Your task to perform on an android device: Show the shopping cart on ebay.com. Search for "panasonic triple a" on ebay.com, select the first entry, add it to the cart, then select checkout. Image 0: 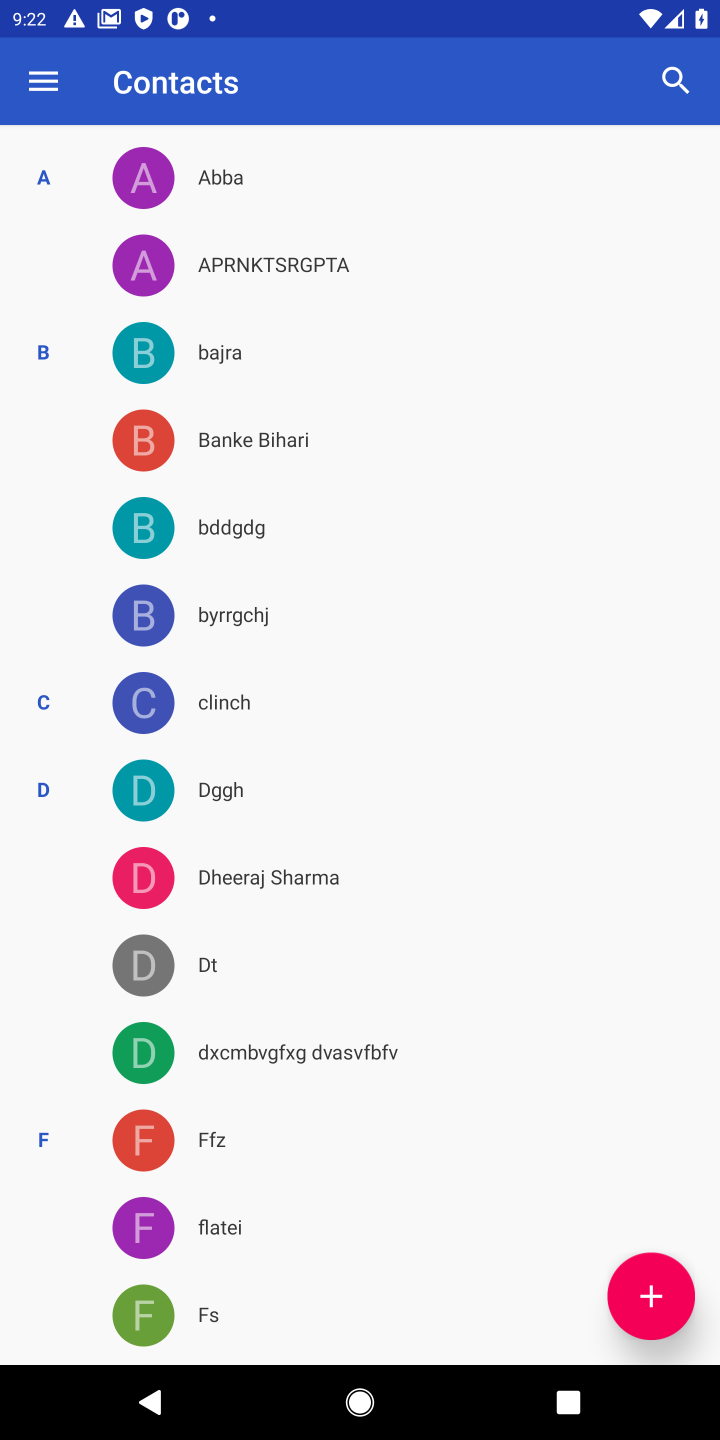
Step 0: press home button
Your task to perform on an android device: Show the shopping cart on ebay.com. Search for "panasonic triple a" on ebay.com, select the first entry, add it to the cart, then select checkout. Image 1: 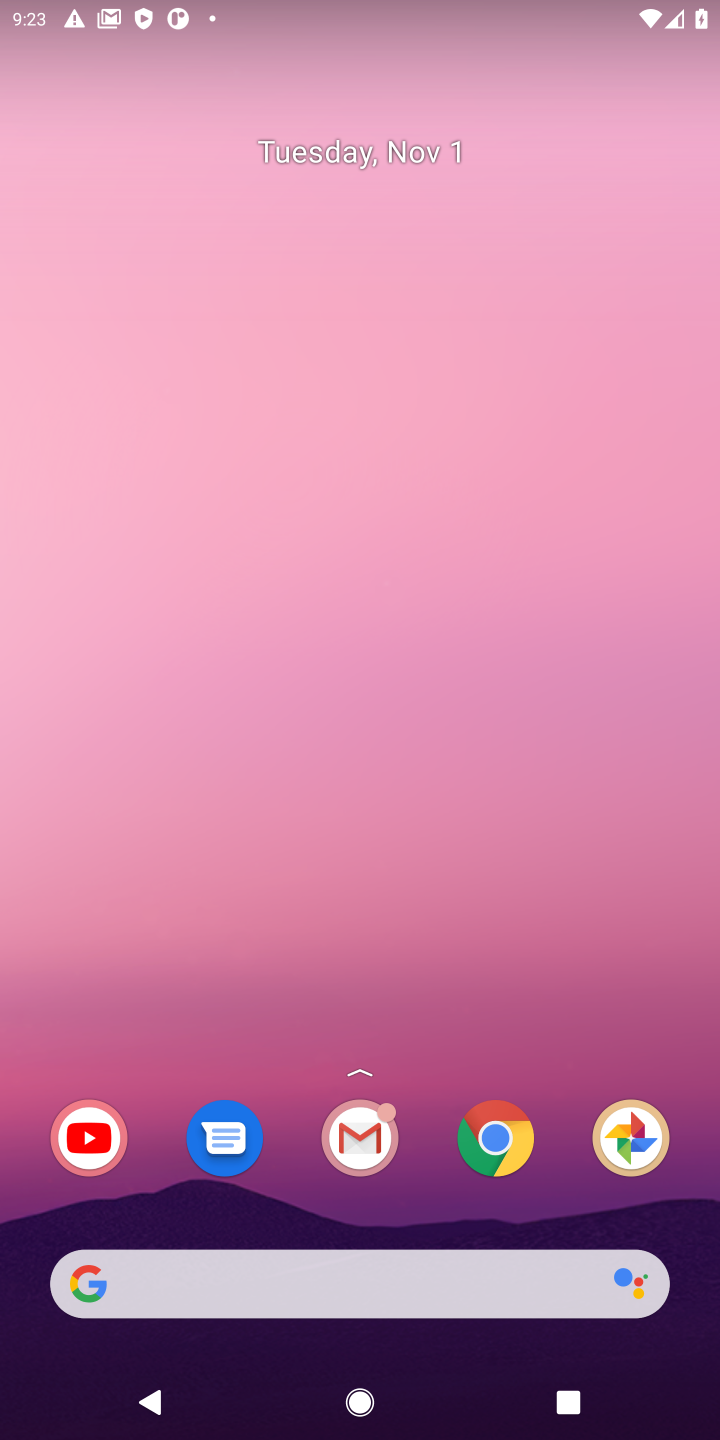
Step 1: click (486, 1150)
Your task to perform on an android device: Show the shopping cart on ebay.com. Search for "panasonic triple a" on ebay.com, select the first entry, add it to the cart, then select checkout. Image 2: 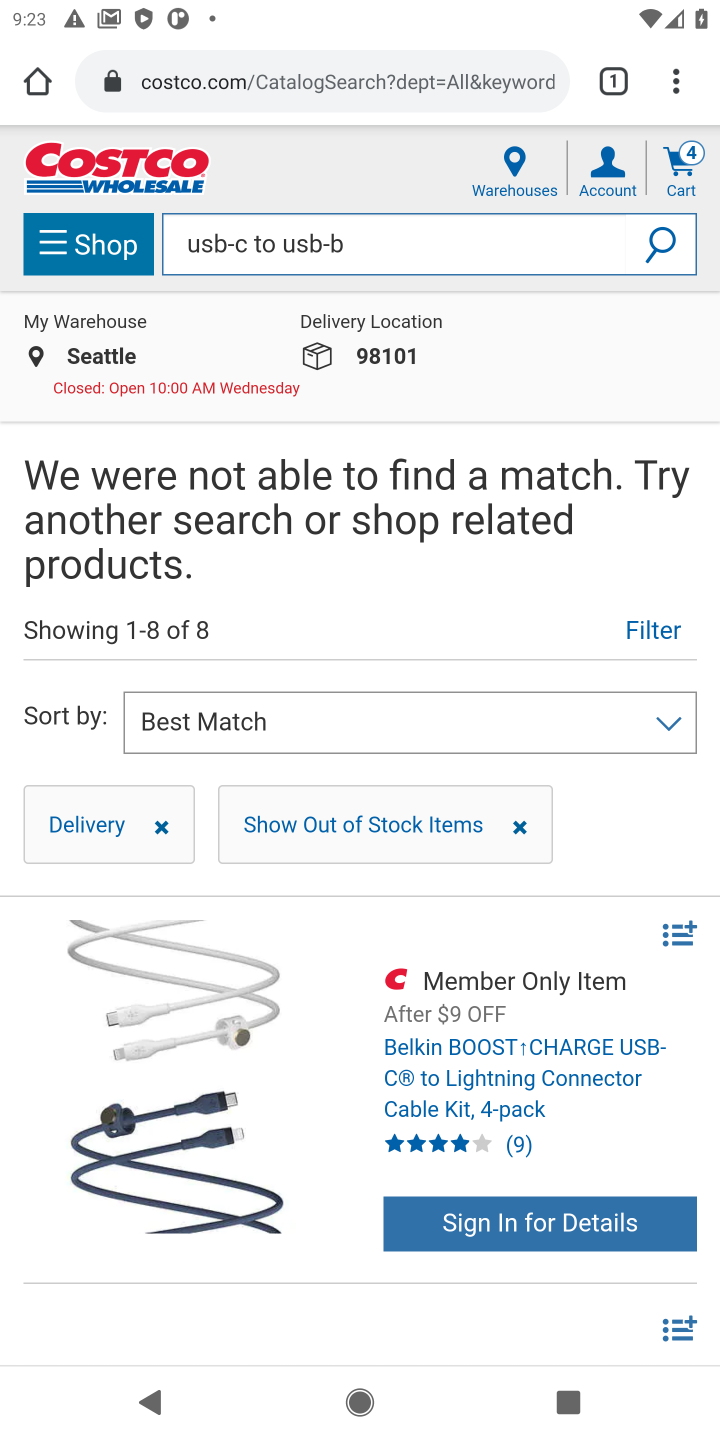
Step 2: click (331, 80)
Your task to perform on an android device: Show the shopping cart on ebay.com. Search for "panasonic triple a" on ebay.com, select the first entry, add it to the cart, then select checkout. Image 3: 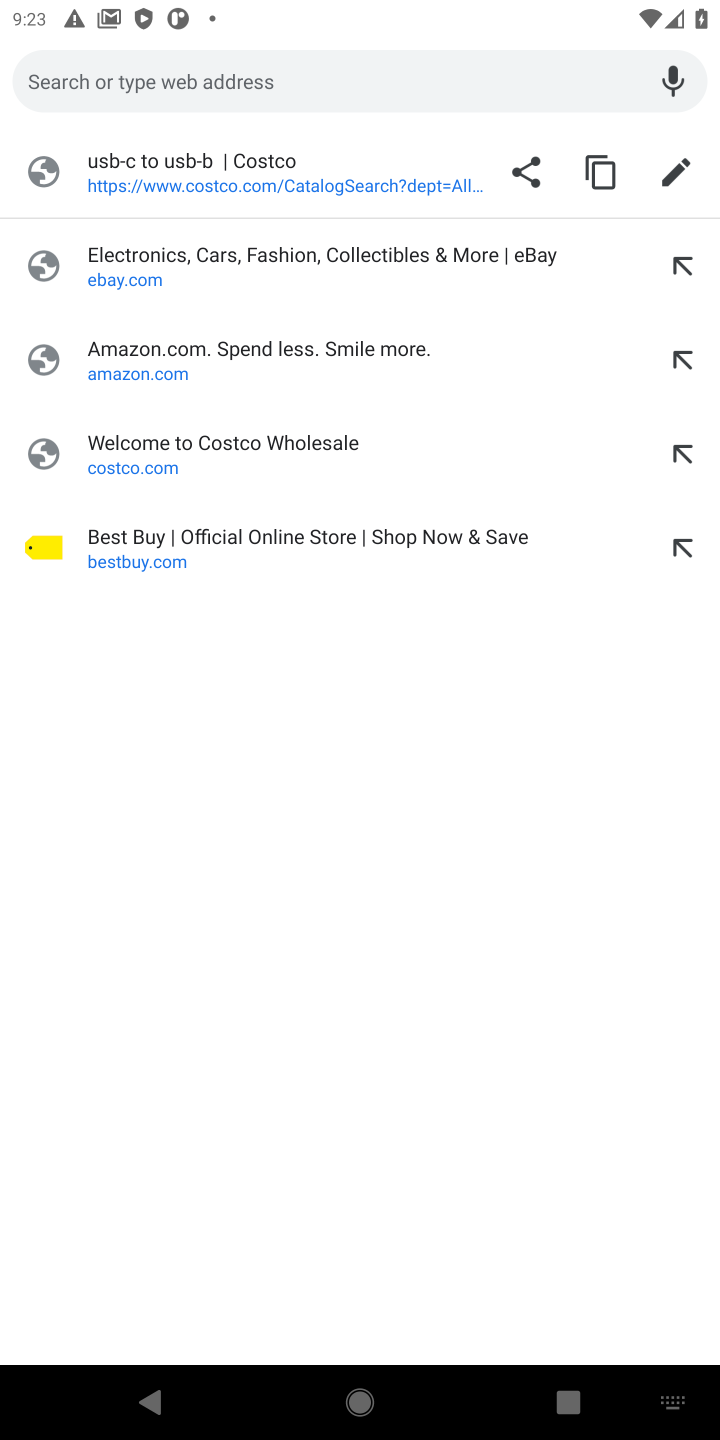
Step 3: type "ebay.com"
Your task to perform on an android device: Show the shopping cart on ebay.com. Search for "panasonic triple a" on ebay.com, select the first entry, add it to the cart, then select checkout. Image 4: 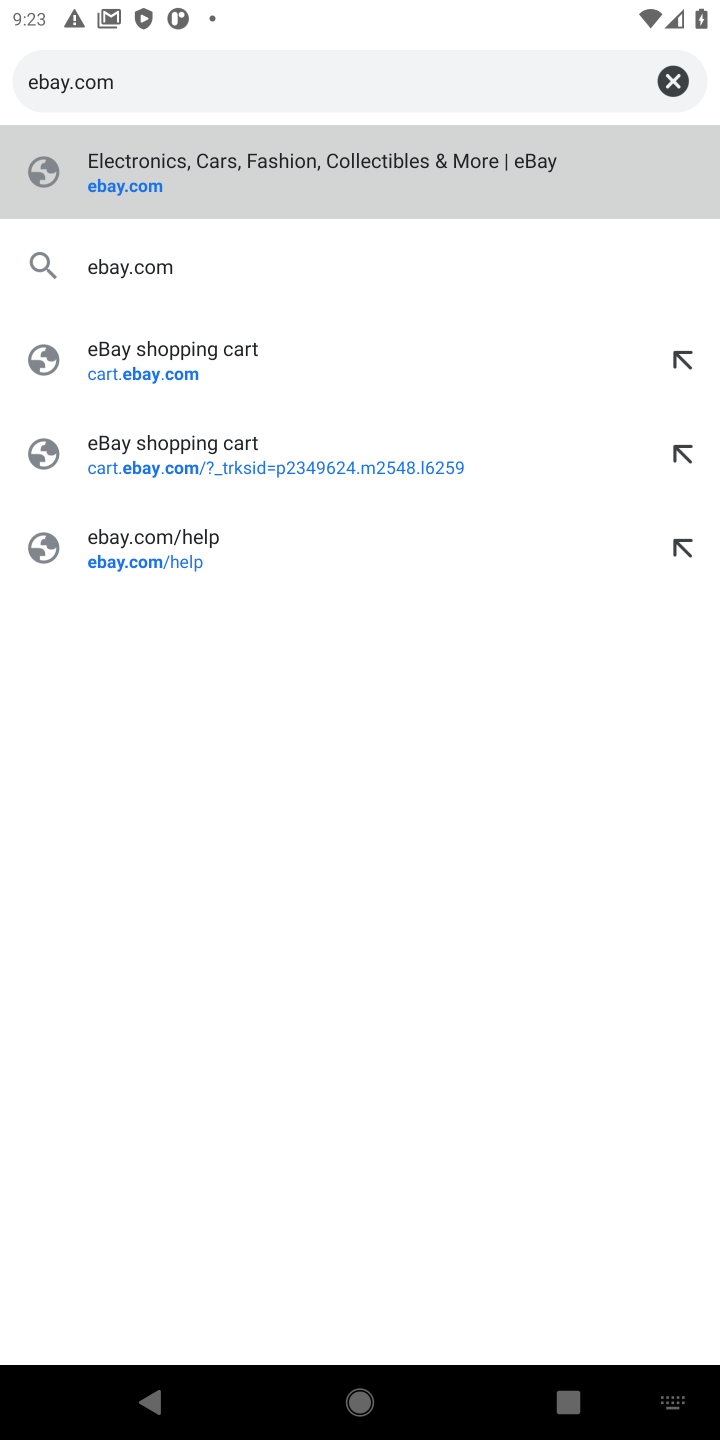
Step 4: click (124, 181)
Your task to perform on an android device: Show the shopping cart on ebay.com. Search for "panasonic triple a" on ebay.com, select the first entry, add it to the cart, then select checkout. Image 5: 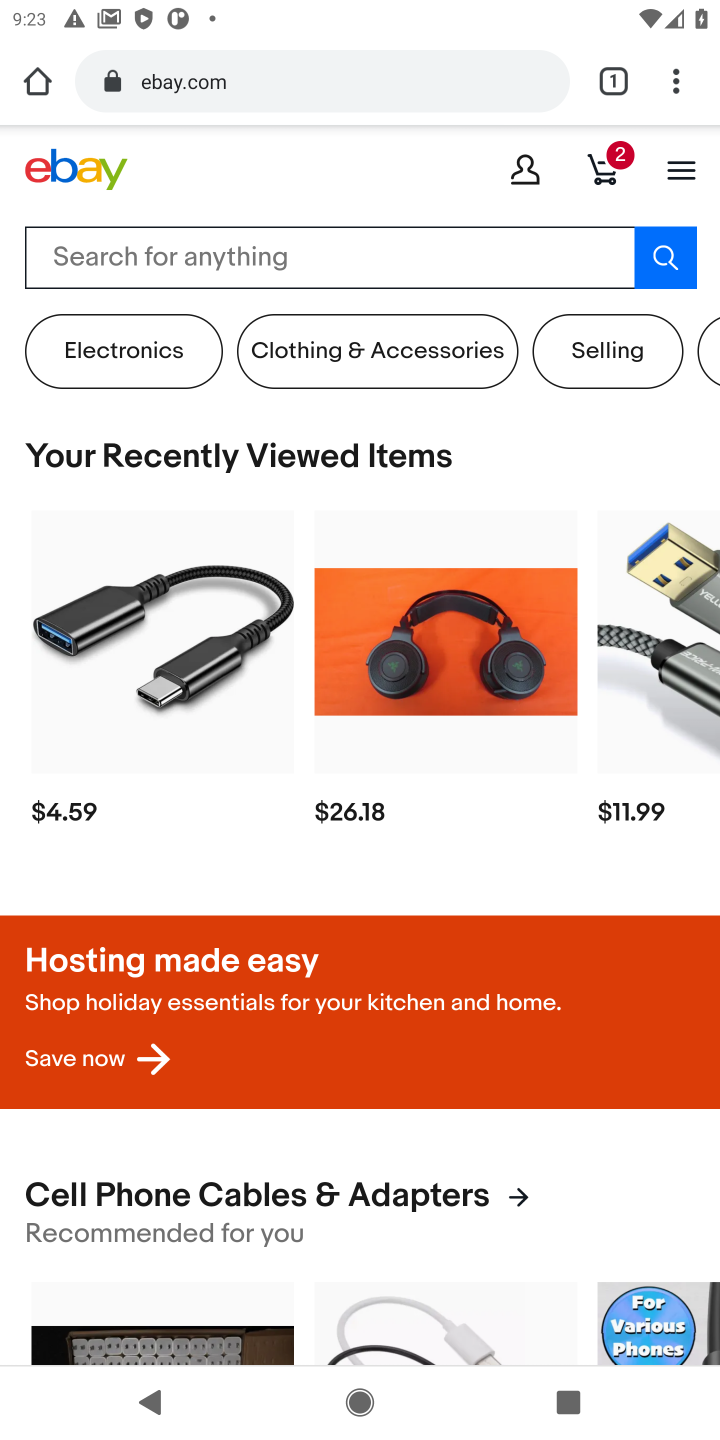
Step 5: click (616, 172)
Your task to perform on an android device: Show the shopping cart on ebay.com. Search for "panasonic triple a" on ebay.com, select the first entry, add it to the cart, then select checkout. Image 6: 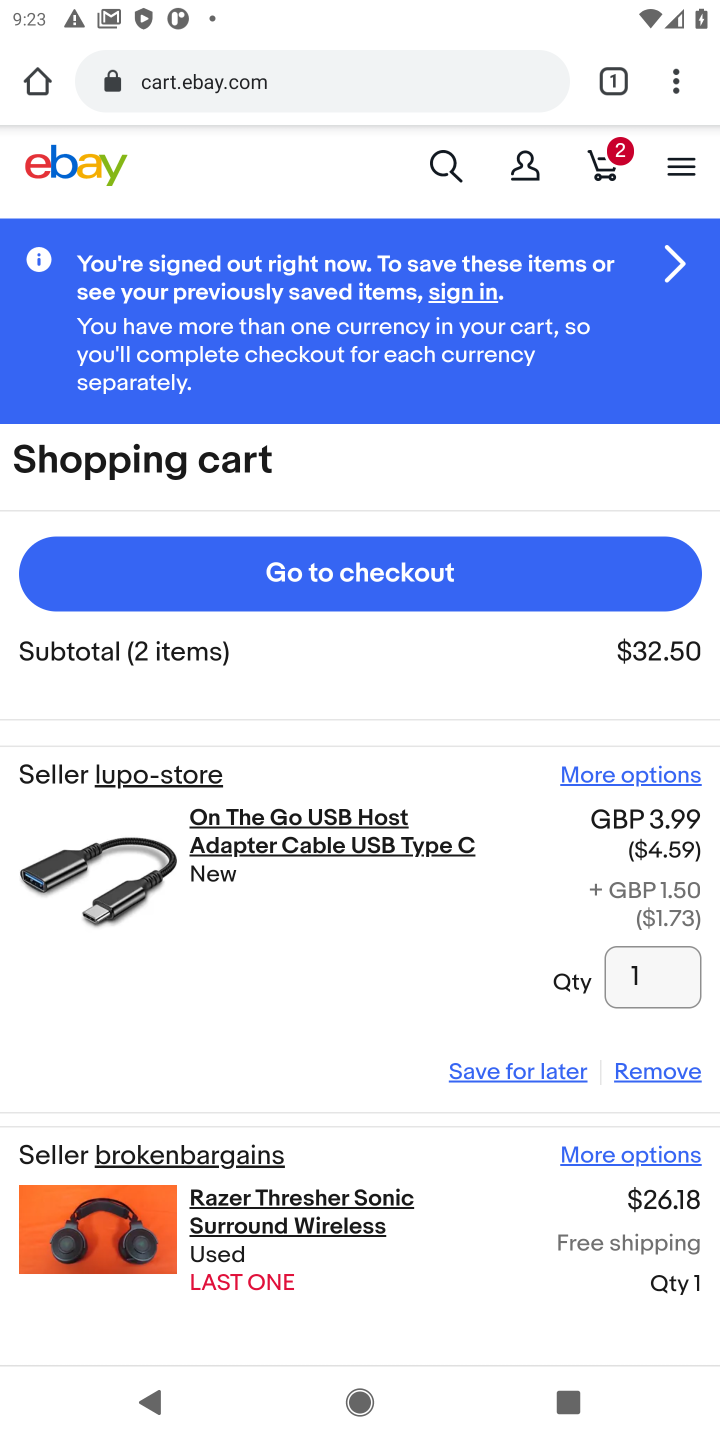
Step 6: click (457, 163)
Your task to perform on an android device: Show the shopping cart on ebay.com. Search for "panasonic triple a" on ebay.com, select the first entry, add it to the cart, then select checkout. Image 7: 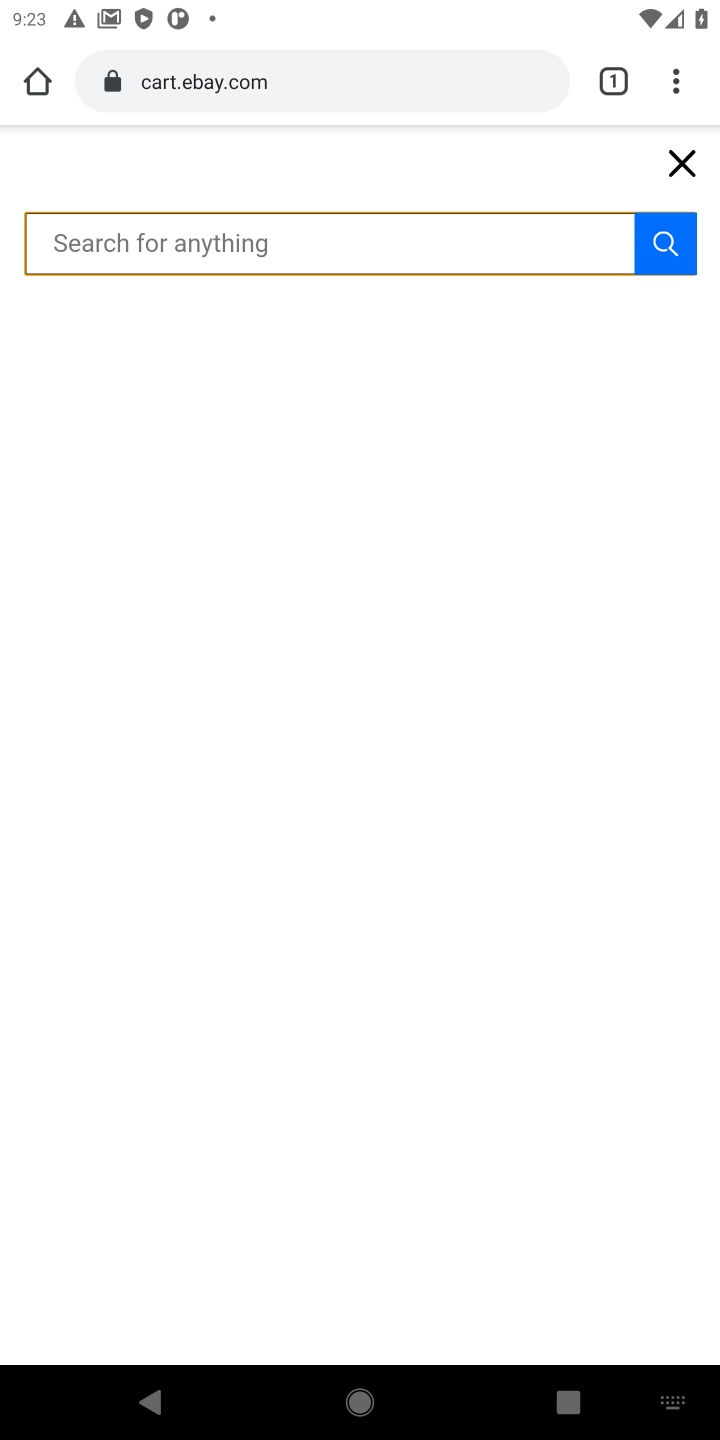
Step 7: type "panasonic triple a"
Your task to perform on an android device: Show the shopping cart on ebay.com. Search for "panasonic triple a" on ebay.com, select the first entry, add it to the cart, then select checkout. Image 8: 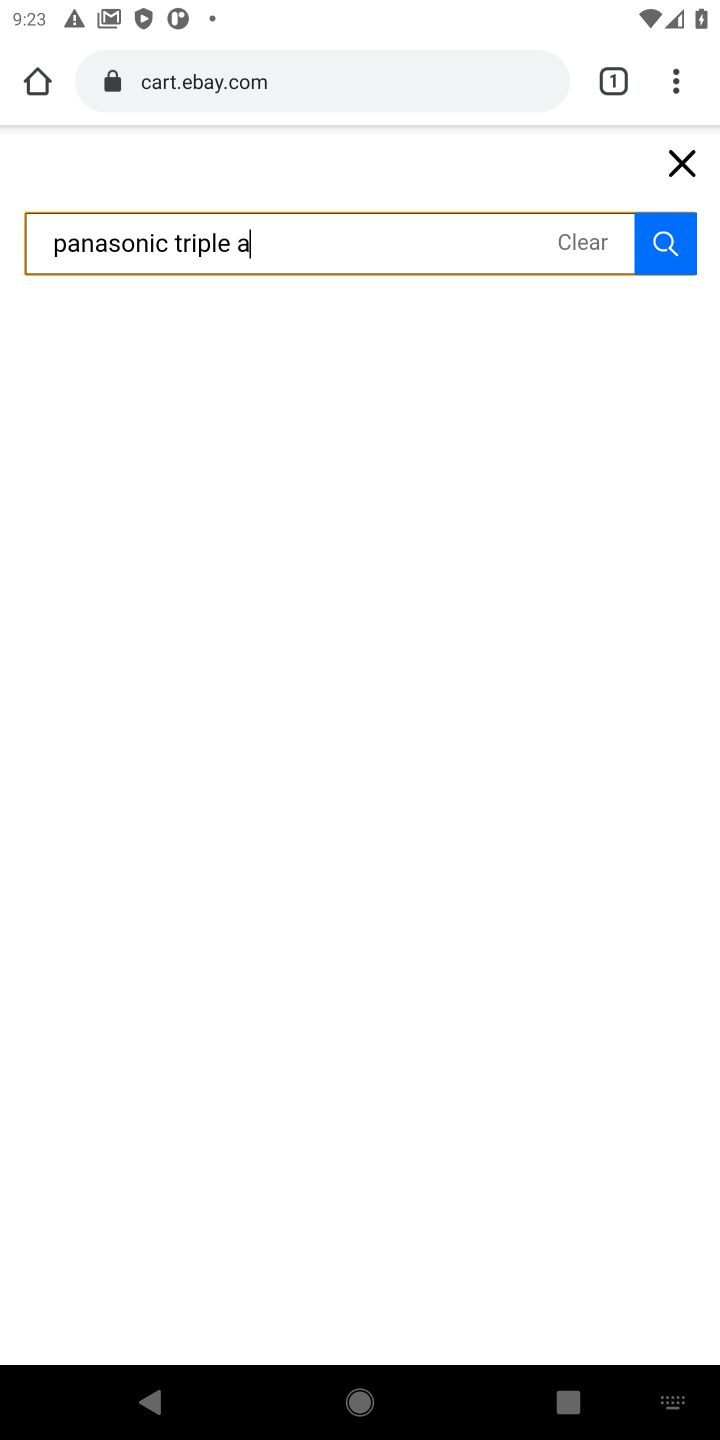
Step 8: click (656, 251)
Your task to perform on an android device: Show the shopping cart on ebay.com. Search for "panasonic triple a" on ebay.com, select the first entry, add it to the cart, then select checkout. Image 9: 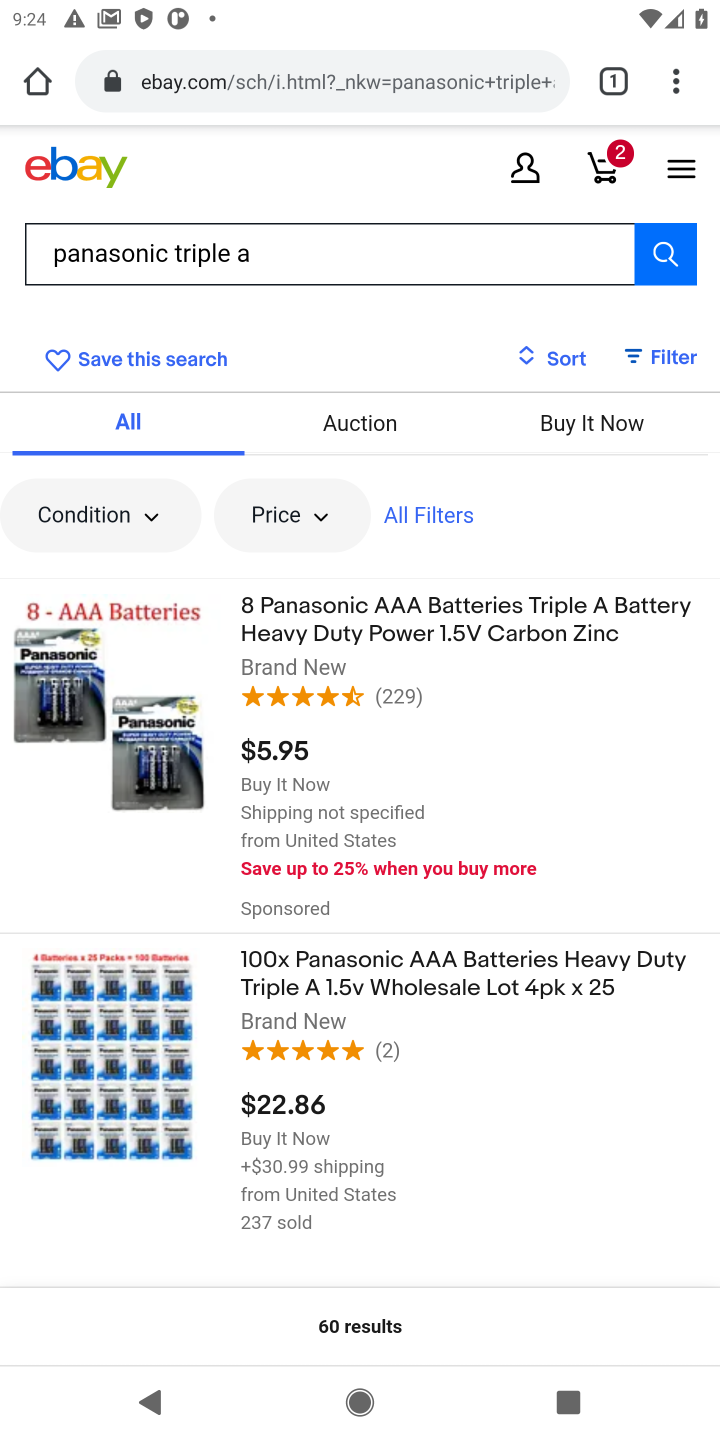
Step 9: click (281, 748)
Your task to perform on an android device: Show the shopping cart on ebay.com. Search for "panasonic triple a" on ebay.com, select the first entry, add it to the cart, then select checkout. Image 10: 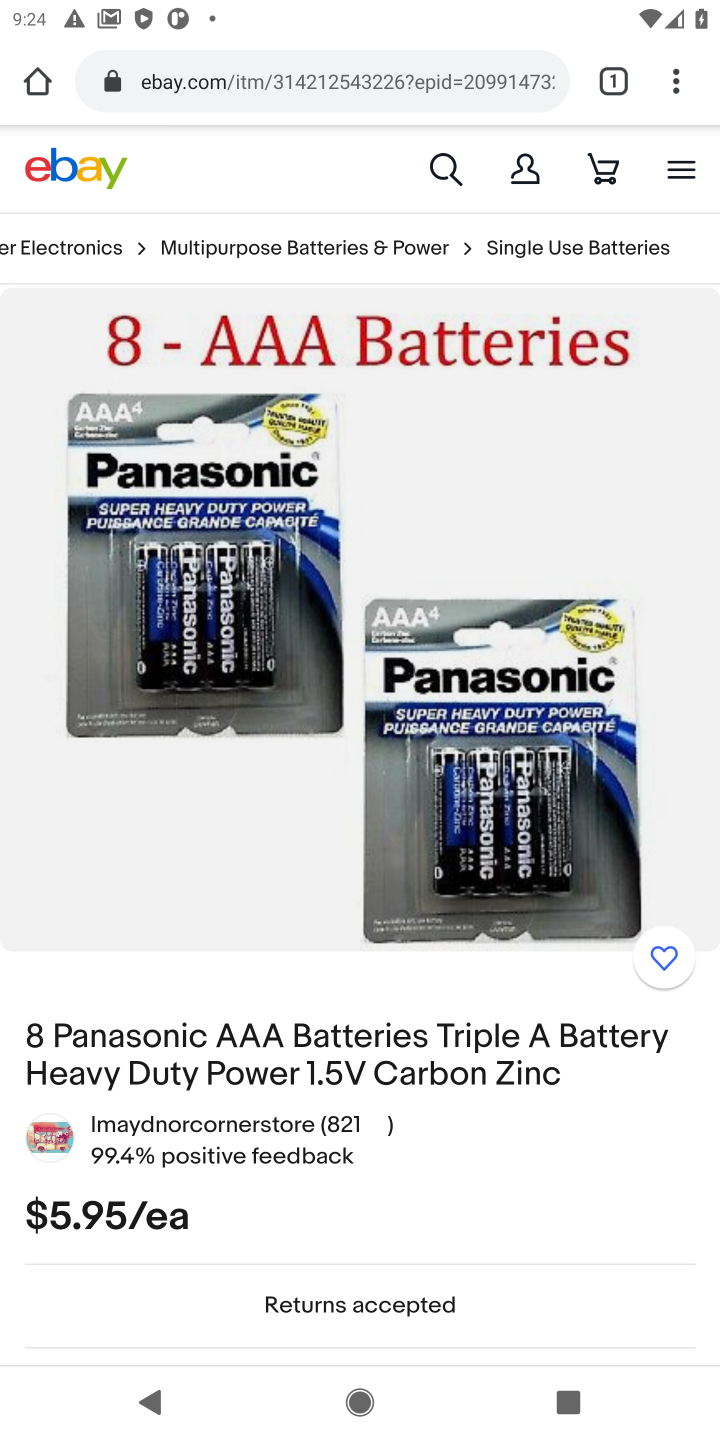
Step 10: drag from (346, 886) to (350, 340)
Your task to perform on an android device: Show the shopping cart on ebay.com. Search for "panasonic triple a" on ebay.com, select the first entry, add it to the cart, then select checkout. Image 11: 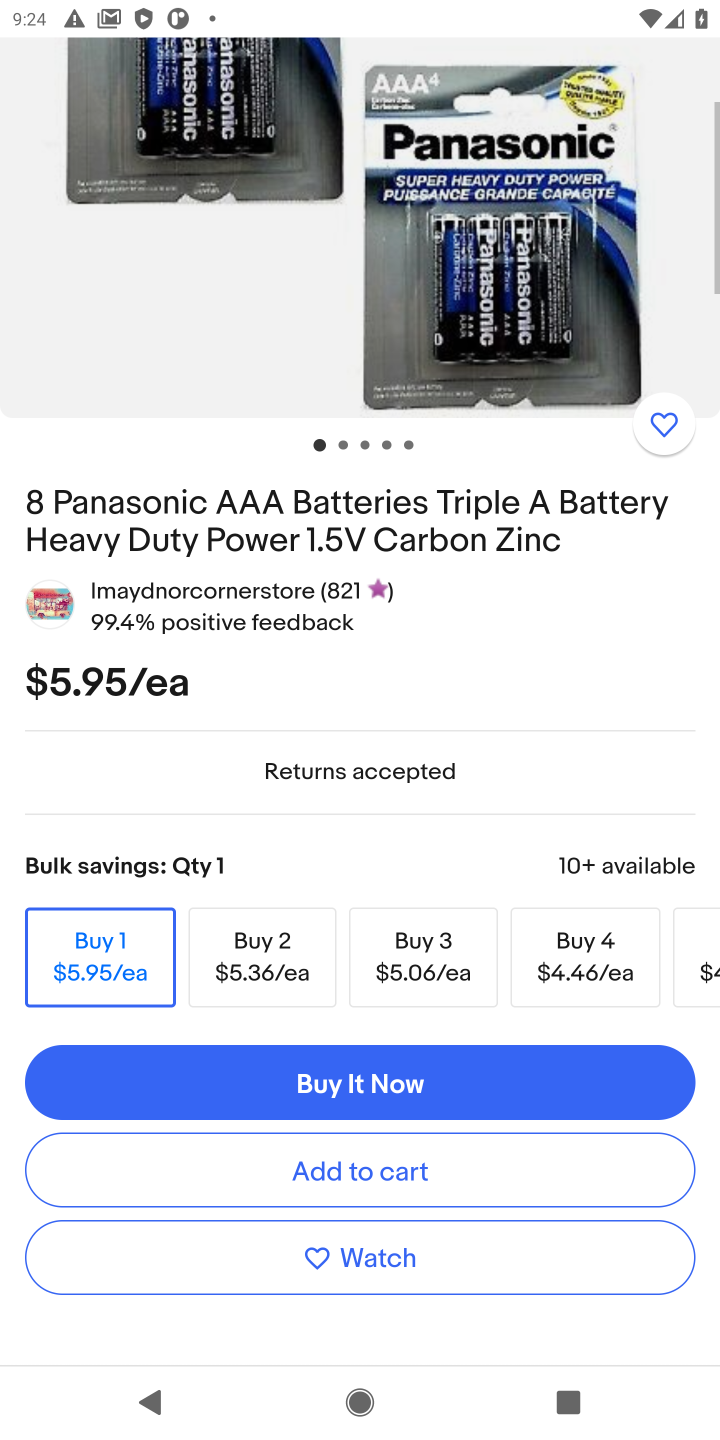
Step 11: drag from (393, 1053) to (406, 568)
Your task to perform on an android device: Show the shopping cart on ebay.com. Search for "panasonic triple a" on ebay.com, select the first entry, add it to the cart, then select checkout. Image 12: 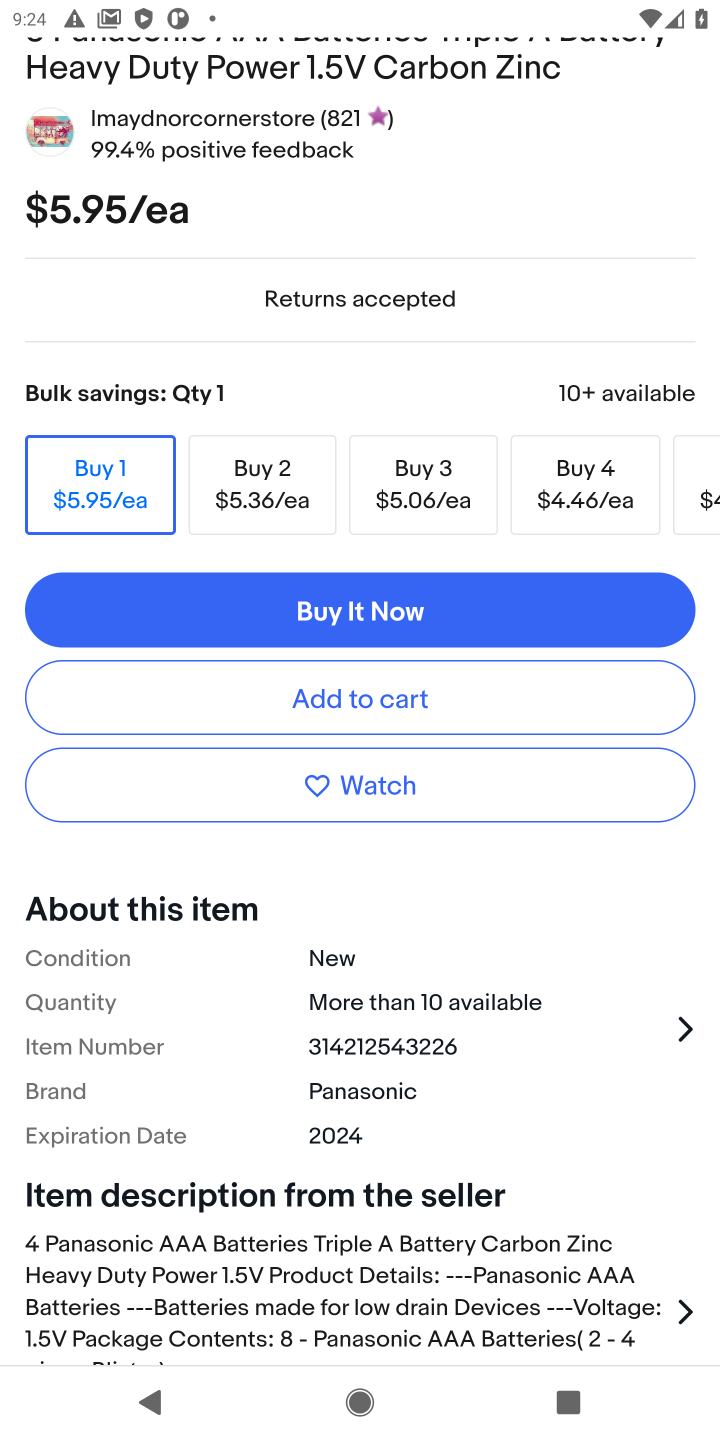
Step 12: click (346, 699)
Your task to perform on an android device: Show the shopping cart on ebay.com. Search for "panasonic triple a" on ebay.com, select the first entry, add it to the cart, then select checkout. Image 13: 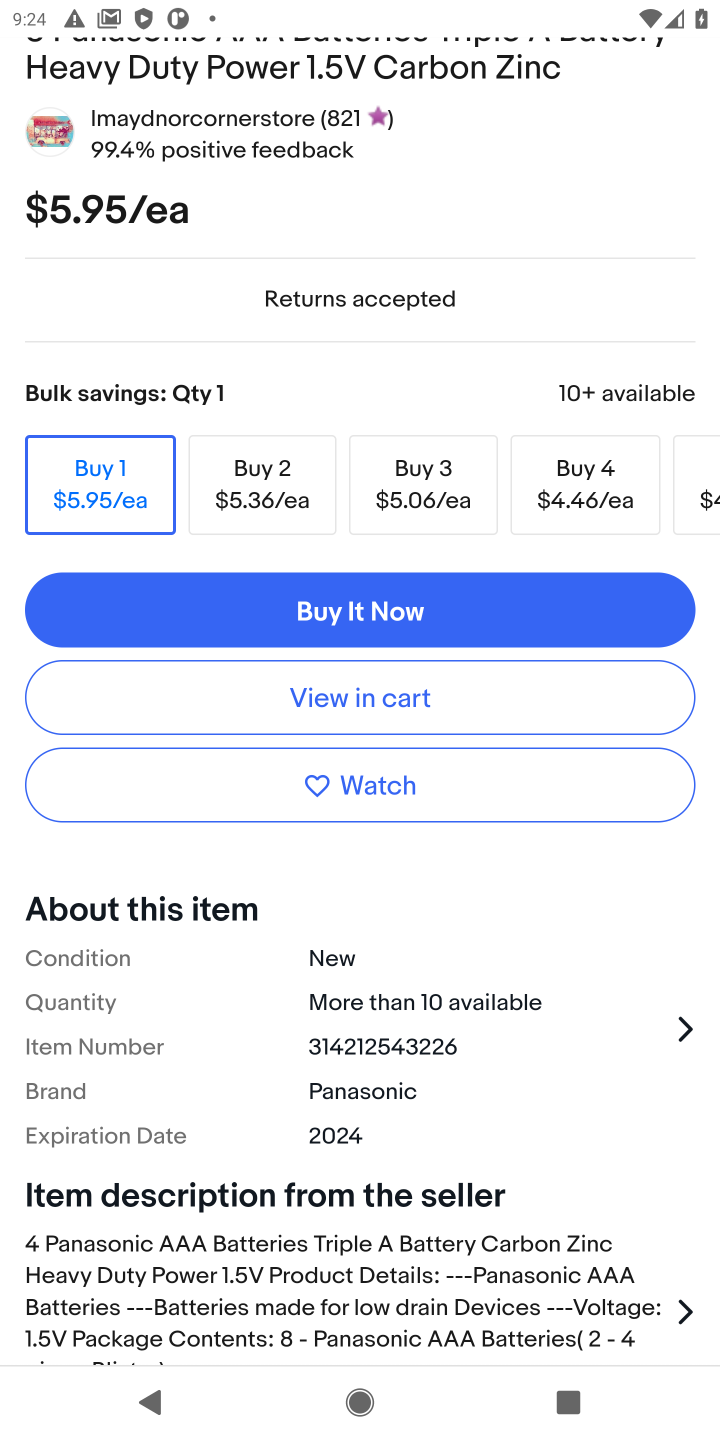
Step 13: click (346, 699)
Your task to perform on an android device: Show the shopping cart on ebay.com. Search for "panasonic triple a" on ebay.com, select the first entry, add it to the cart, then select checkout. Image 14: 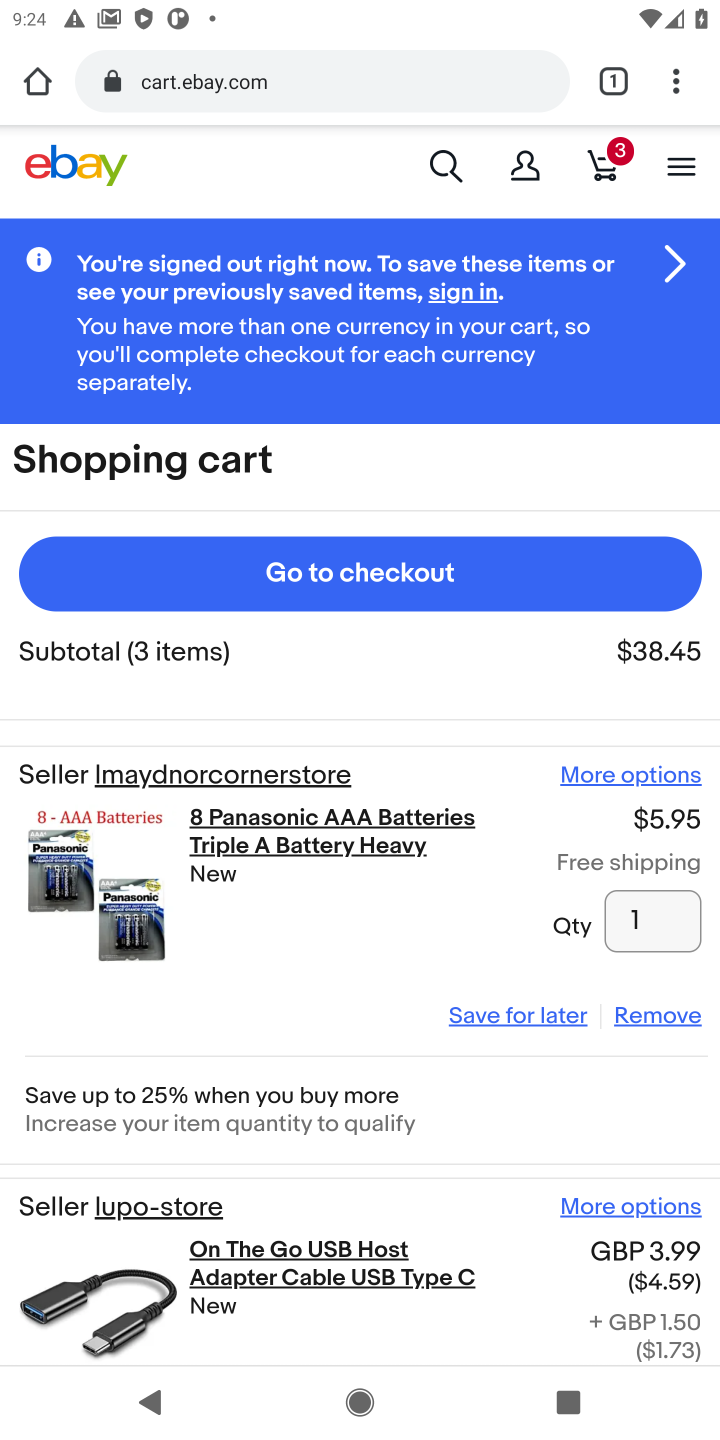
Step 14: click (331, 568)
Your task to perform on an android device: Show the shopping cart on ebay.com. Search for "panasonic triple a" on ebay.com, select the first entry, add it to the cart, then select checkout. Image 15: 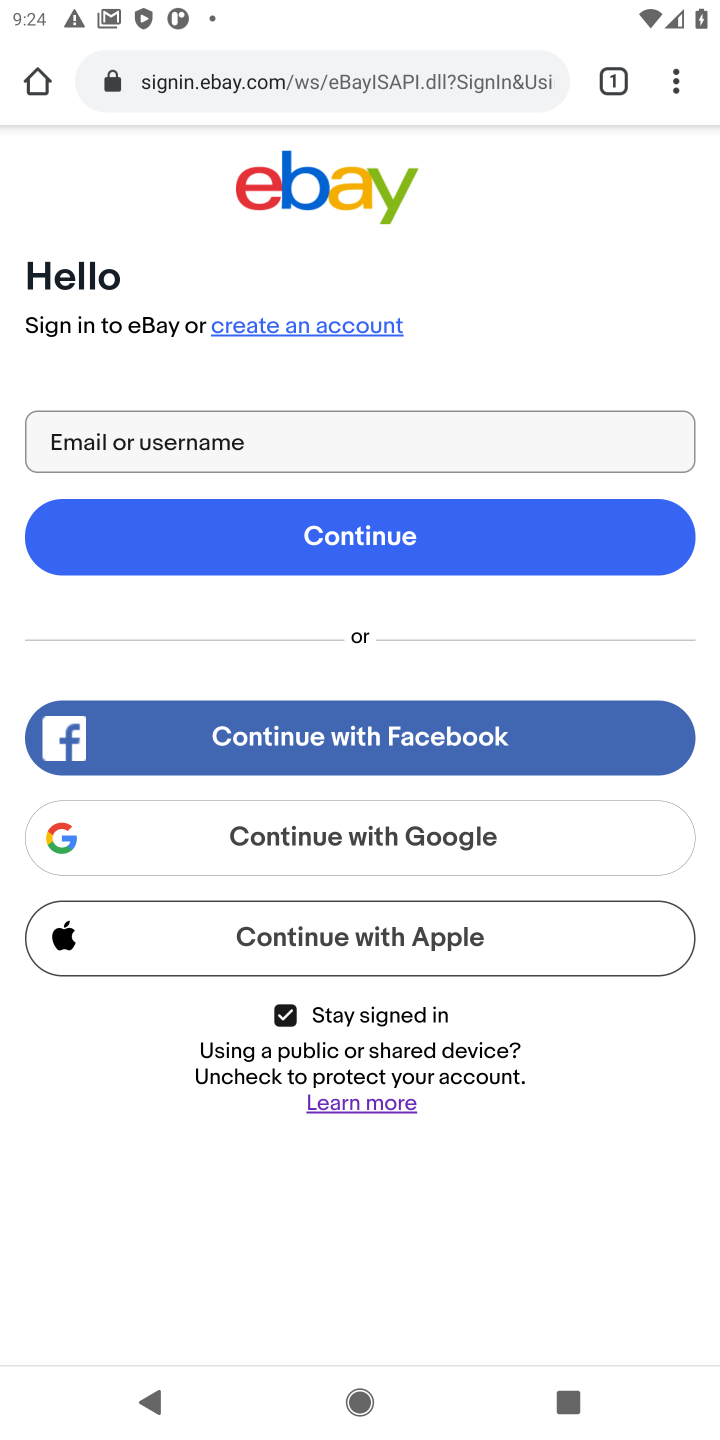
Step 15: task complete